Your task to perform on an android device: Go to network settings Image 0: 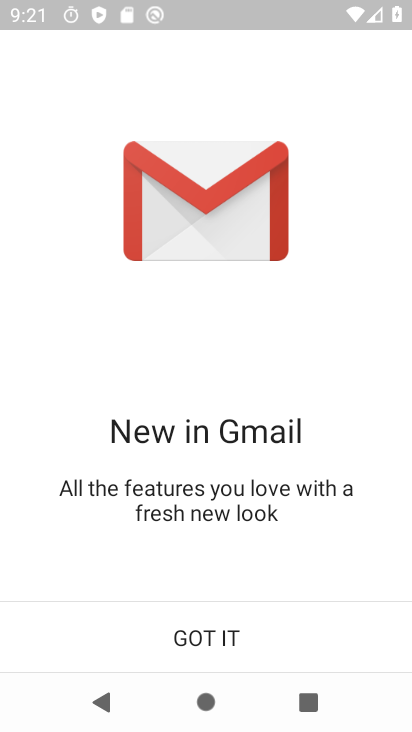
Step 0: click (194, 632)
Your task to perform on an android device: Go to network settings Image 1: 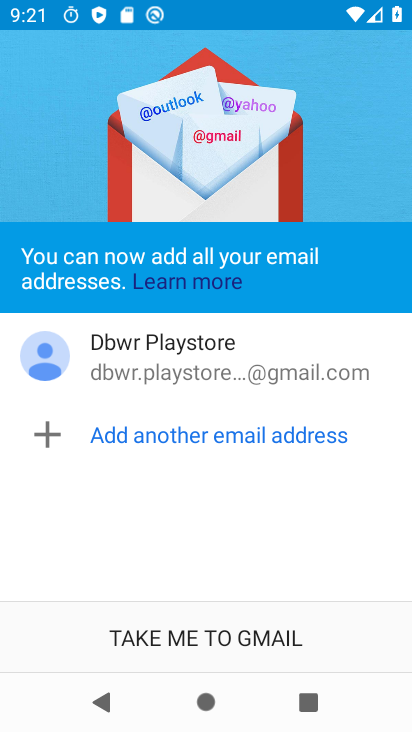
Step 1: click (265, 633)
Your task to perform on an android device: Go to network settings Image 2: 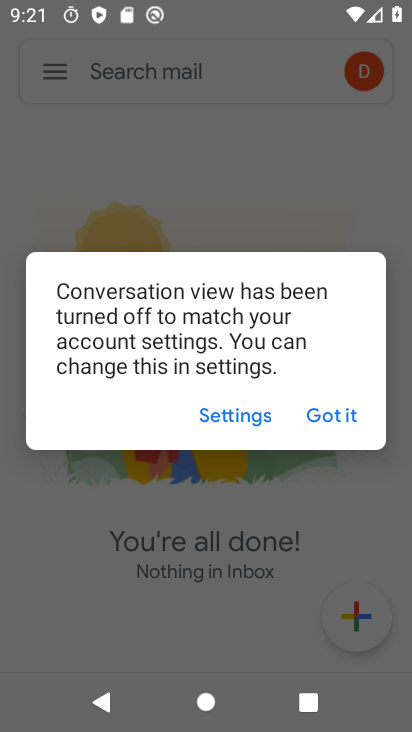
Step 2: click (338, 417)
Your task to perform on an android device: Go to network settings Image 3: 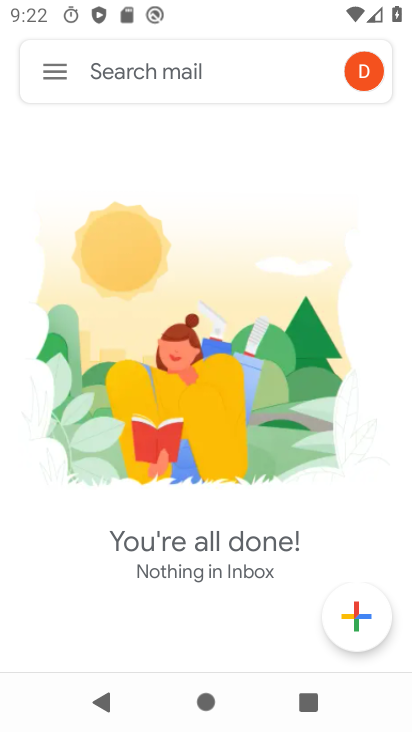
Step 3: press home button
Your task to perform on an android device: Go to network settings Image 4: 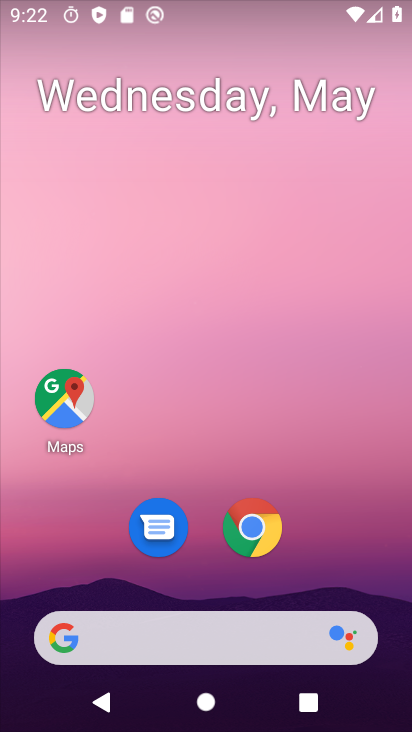
Step 4: drag from (201, 443) to (235, 55)
Your task to perform on an android device: Go to network settings Image 5: 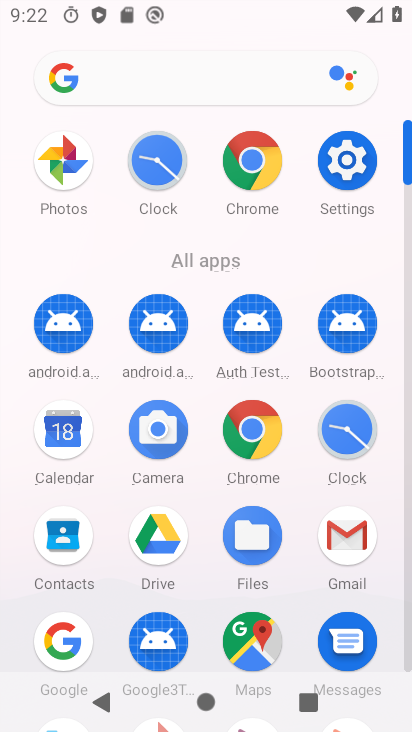
Step 5: click (357, 158)
Your task to perform on an android device: Go to network settings Image 6: 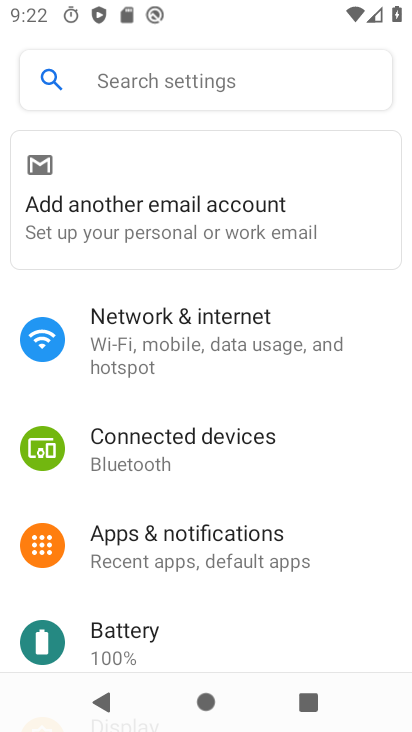
Step 6: click (197, 305)
Your task to perform on an android device: Go to network settings Image 7: 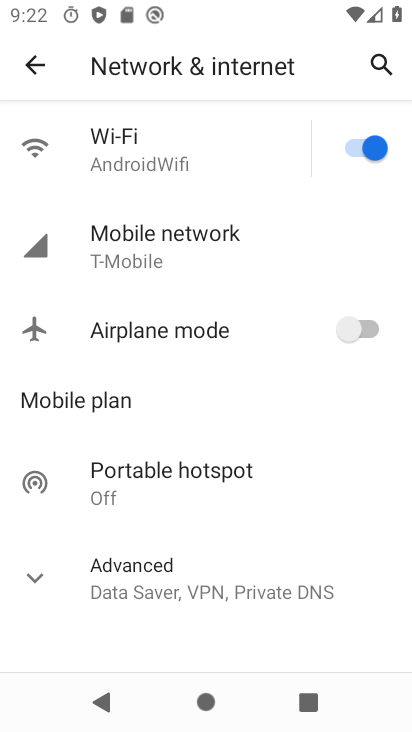
Step 7: task complete